Your task to perform on an android device: see creations saved in the google photos Image 0: 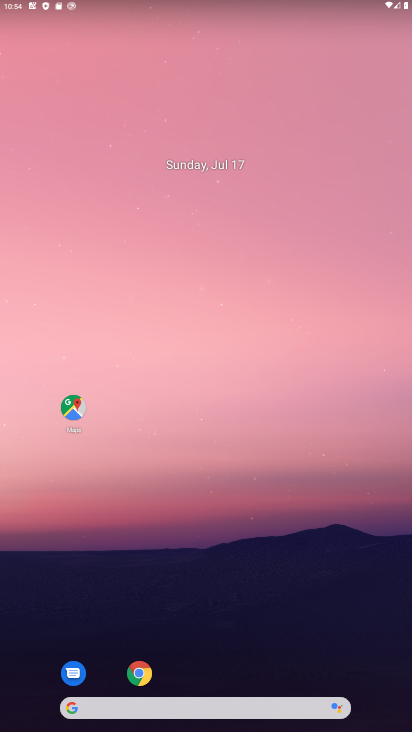
Step 0: drag from (262, 668) to (265, 133)
Your task to perform on an android device: see creations saved in the google photos Image 1: 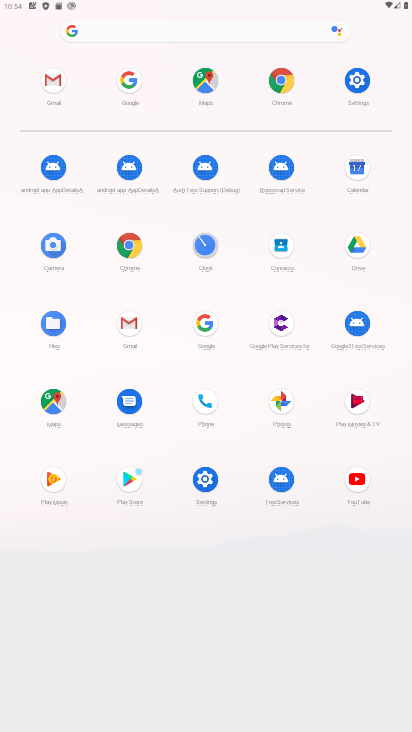
Step 1: click (279, 405)
Your task to perform on an android device: see creations saved in the google photos Image 2: 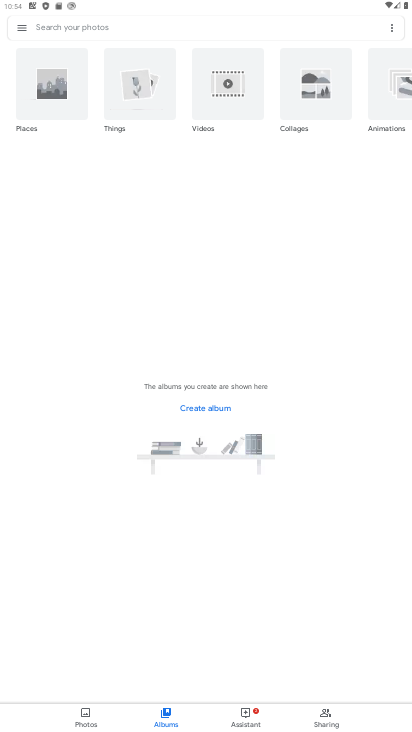
Step 2: click (155, 24)
Your task to perform on an android device: see creations saved in the google photos Image 3: 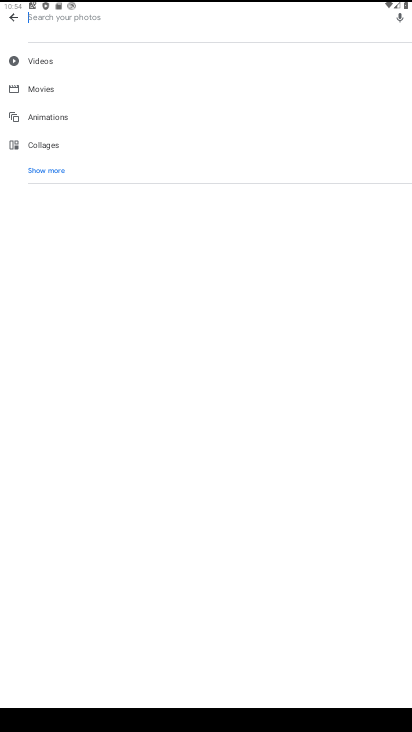
Step 3: click (45, 168)
Your task to perform on an android device: see creations saved in the google photos Image 4: 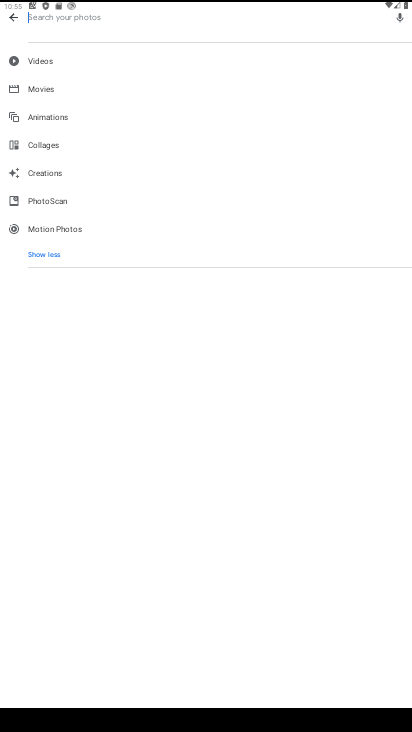
Step 4: click (49, 171)
Your task to perform on an android device: see creations saved in the google photos Image 5: 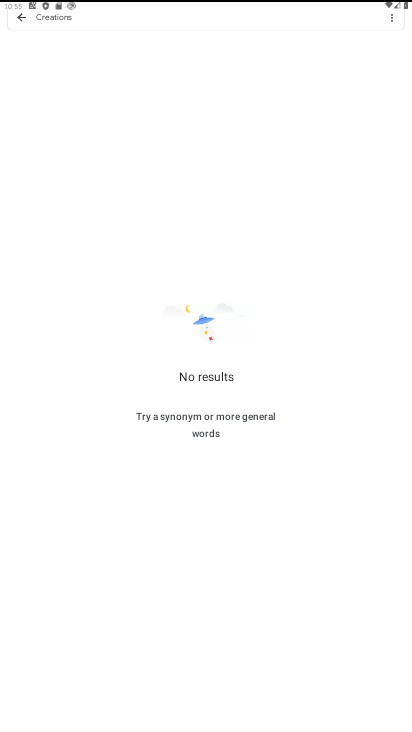
Step 5: task complete